Your task to perform on an android device: Find coffee shops on Maps Image 0: 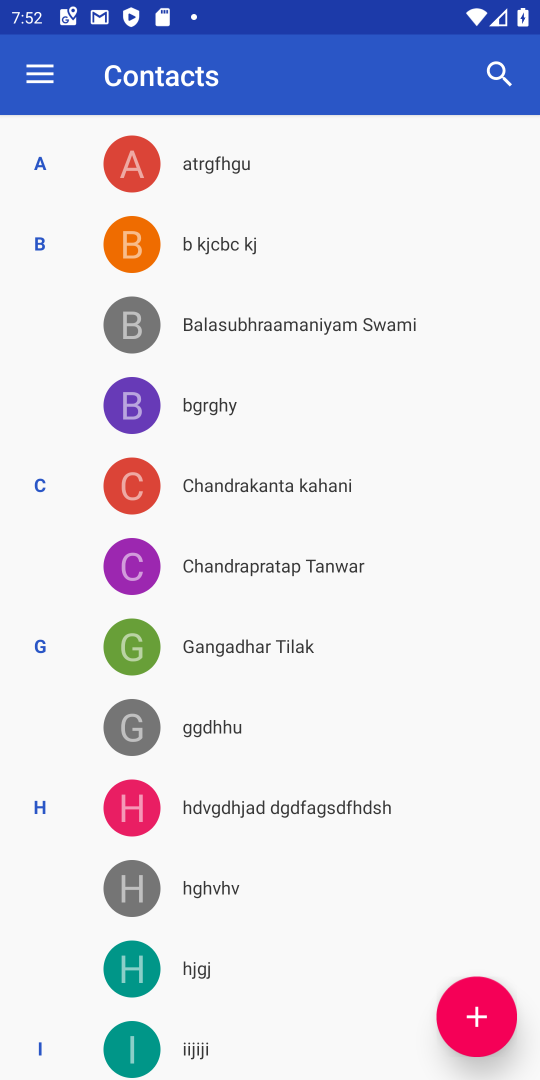
Step 0: press home button
Your task to perform on an android device: Find coffee shops on Maps Image 1: 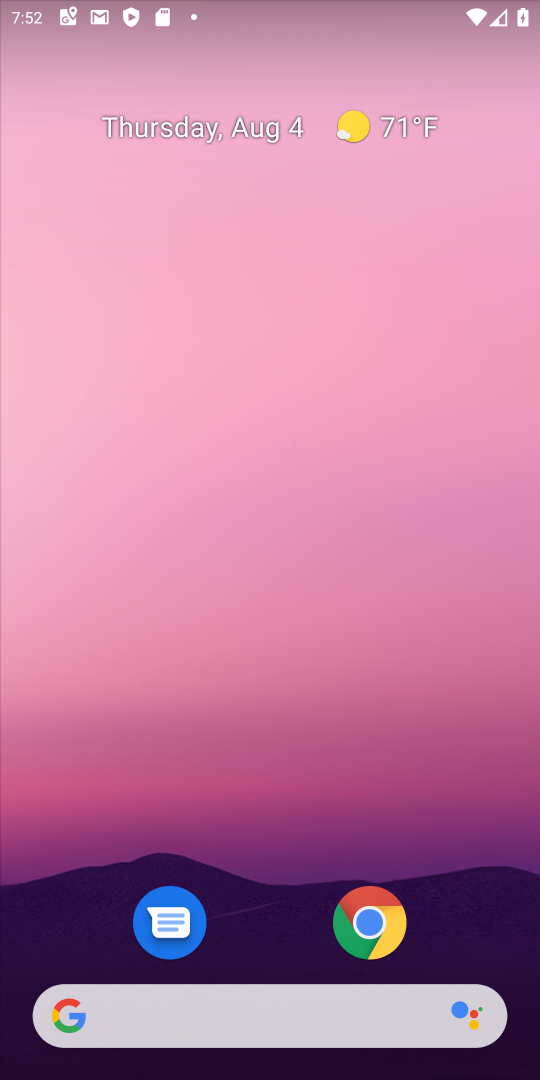
Step 1: drag from (294, 931) to (204, 136)
Your task to perform on an android device: Find coffee shops on Maps Image 2: 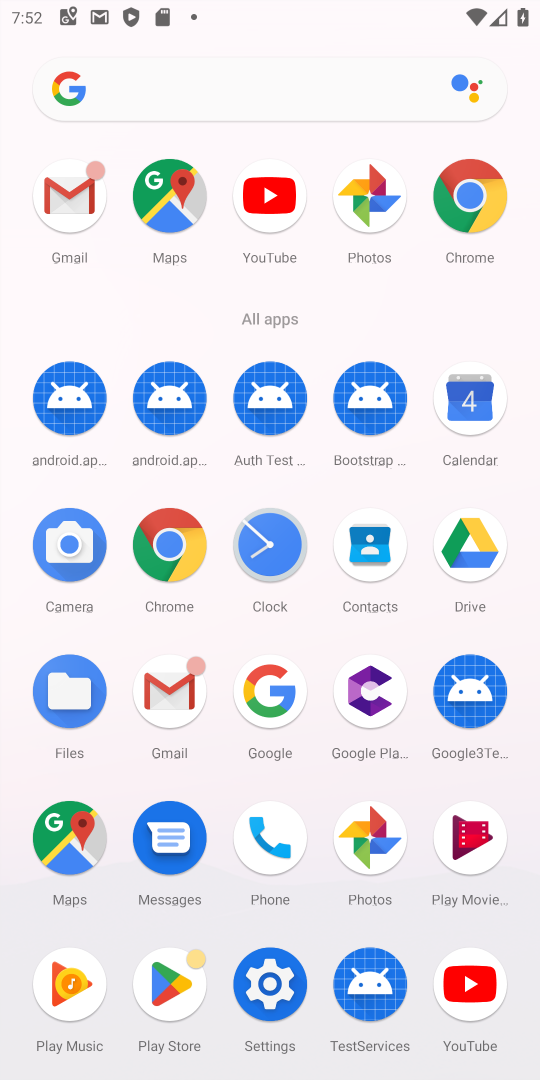
Step 2: click (66, 838)
Your task to perform on an android device: Find coffee shops on Maps Image 3: 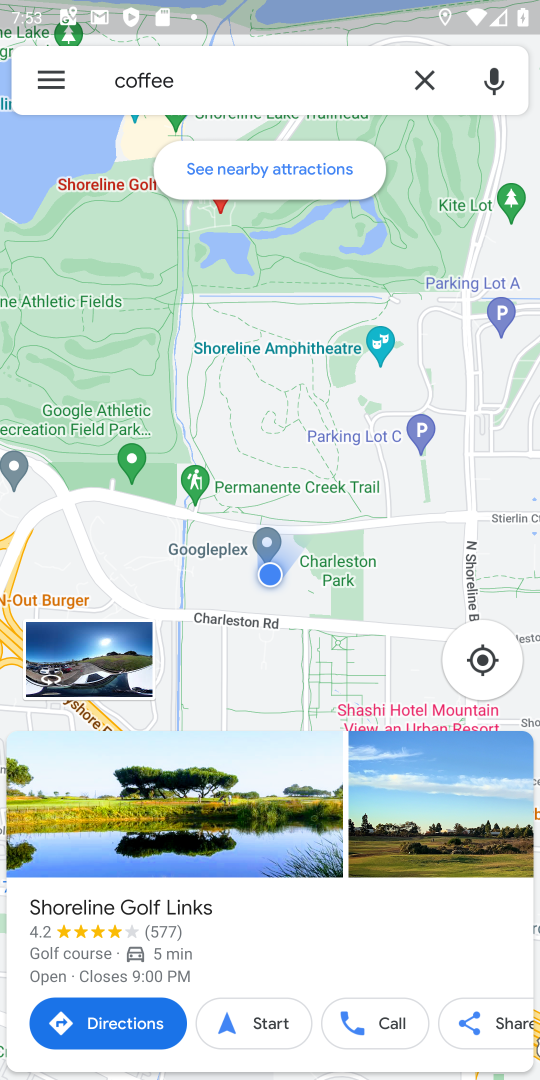
Step 3: task complete